Your task to perform on an android device: Show the shopping cart on newegg.com. Search for "amazon basics triple a" on newegg.com, select the first entry, and add it to the cart. Image 0: 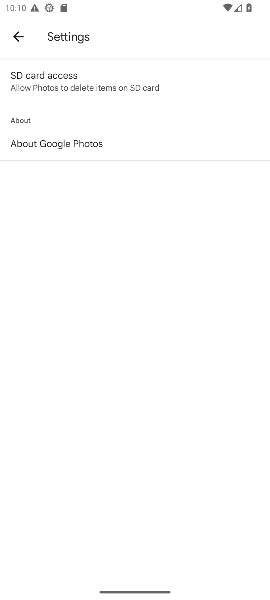
Step 0: press home button
Your task to perform on an android device: Show the shopping cart on newegg.com. Search for "amazon basics triple a" on newegg.com, select the first entry, and add it to the cart. Image 1: 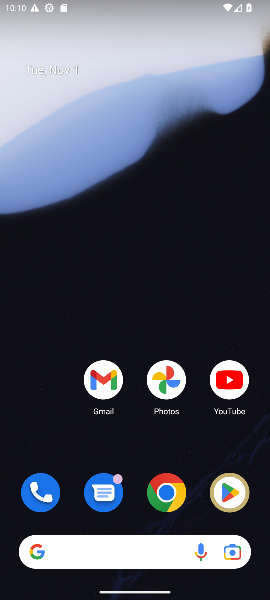
Step 1: click (166, 496)
Your task to perform on an android device: Show the shopping cart on newegg.com. Search for "amazon basics triple a" on newegg.com, select the first entry, and add it to the cart. Image 2: 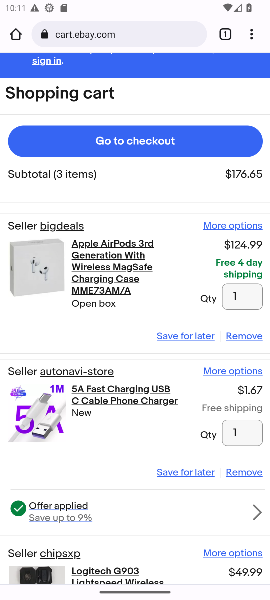
Step 2: click (92, 28)
Your task to perform on an android device: Show the shopping cart on newegg.com. Search for "amazon basics triple a" on newegg.com, select the first entry, and add it to the cart. Image 3: 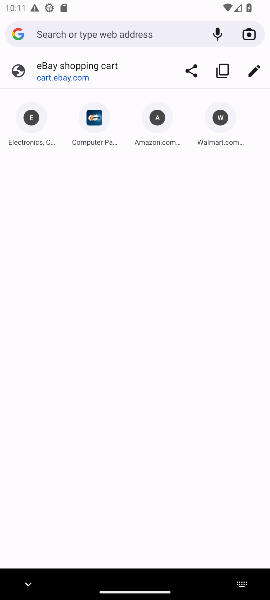
Step 3: type "newegg.com"
Your task to perform on an android device: Show the shopping cart on newegg.com. Search for "amazon basics triple a" on newegg.com, select the first entry, and add it to the cart. Image 4: 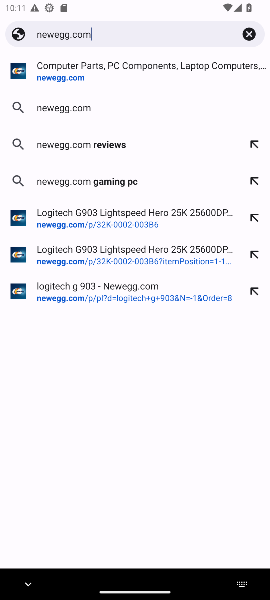
Step 4: click (49, 76)
Your task to perform on an android device: Show the shopping cart on newegg.com. Search for "amazon basics triple a" on newegg.com, select the first entry, and add it to the cart. Image 5: 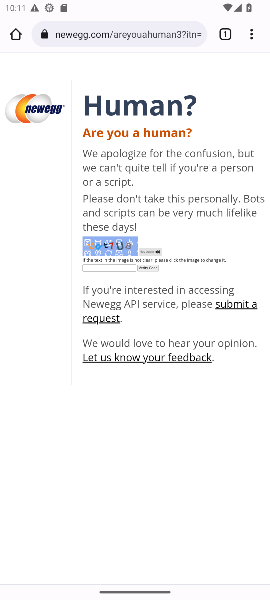
Step 5: press back button
Your task to perform on an android device: Show the shopping cart on newegg.com. Search for "amazon basics triple a" on newegg.com, select the first entry, and add it to the cart. Image 6: 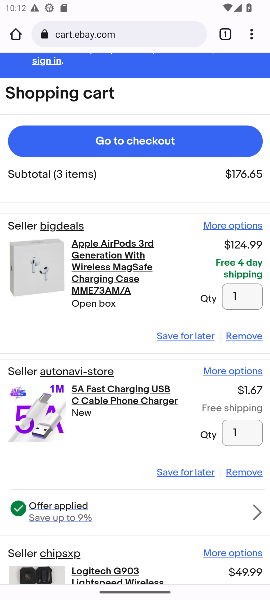
Step 6: press back button
Your task to perform on an android device: Show the shopping cart on newegg.com. Search for "amazon basics triple a" on newegg.com, select the first entry, and add it to the cart. Image 7: 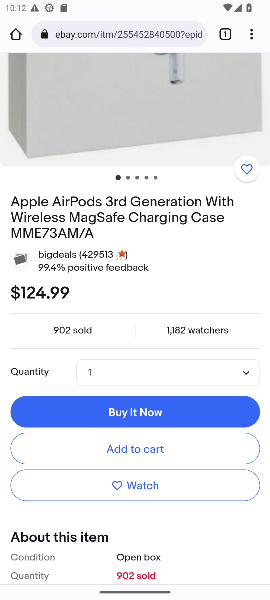
Step 7: press back button
Your task to perform on an android device: Show the shopping cart on newegg.com. Search for "amazon basics triple a" on newegg.com, select the first entry, and add it to the cart. Image 8: 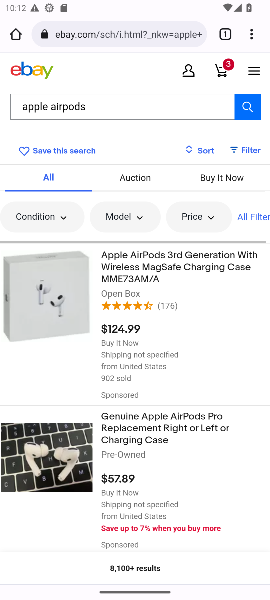
Step 8: click (104, 34)
Your task to perform on an android device: Show the shopping cart on newegg.com. Search for "amazon basics triple a" on newegg.com, select the first entry, and add it to the cart. Image 9: 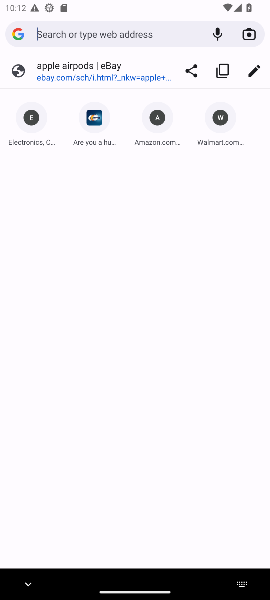
Step 9: type "newegg.com"
Your task to perform on an android device: Show the shopping cart on newegg.com. Search for "amazon basics triple a" on newegg.com, select the first entry, and add it to the cart. Image 10: 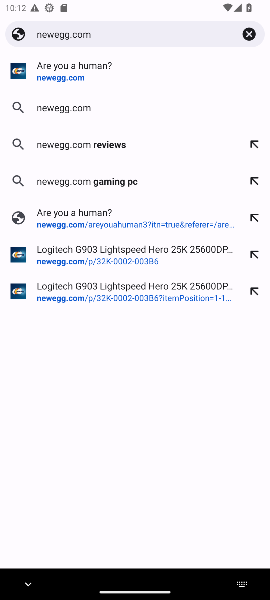
Step 10: click (49, 78)
Your task to perform on an android device: Show the shopping cart on newegg.com. Search for "amazon basics triple a" on newegg.com, select the first entry, and add it to the cart. Image 11: 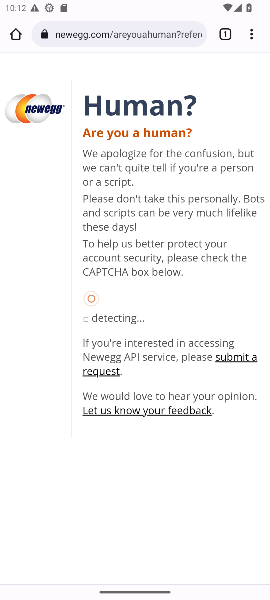
Step 11: press back button
Your task to perform on an android device: Show the shopping cart on newegg.com. Search for "amazon basics triple a" on newegg.com, select the first entry, and add it to the cart. Image 12: 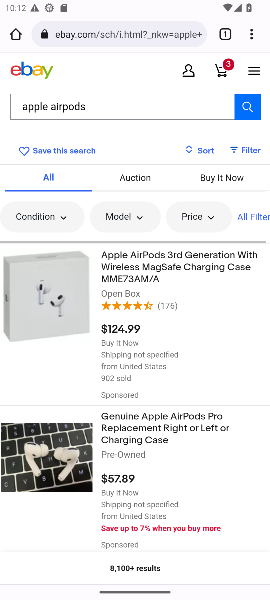
Step 12: click (61, 30)
Your task to perform on an android device: Show the shopping cart on newegg.com. Search for "amazon basics triple a" on newegg.com, select the first entry, and add it to the cart. Image 13: 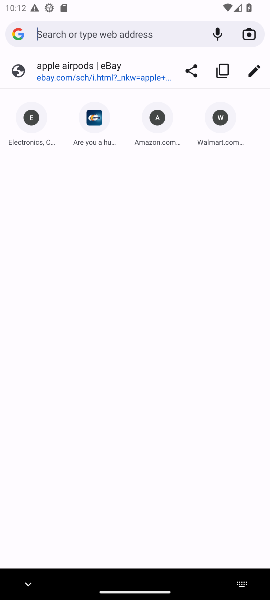
Step 13: press back button
Your task to perform on an android device: Show the shopping cart on newegg.com. Search for "amazon basics triple a" on newegg.com, select the first entry, and add it to the cart. Image 14: 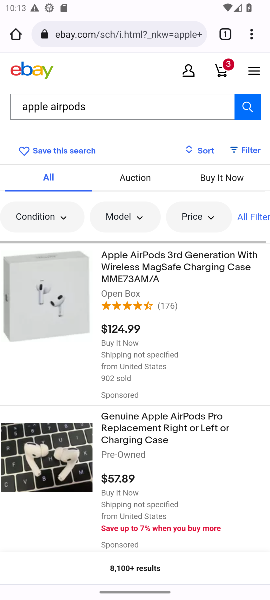
Step 14: press back button
Your task to perform on an android device: Show the shopping cart on newegg.com. Search for "amazon basics triple a" on newegg.com, select the first entry, and add it to the cart. Image 15: 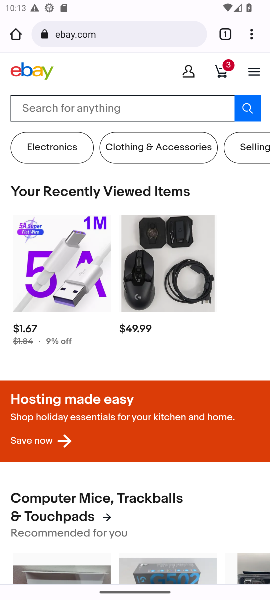
Step 15: press back button
Your task to perform on an android device: Show the shopping cart on newegg.com. Search for "amazon basics triple a" on newegg.com, select the first entry, and add it to the cart. Image 16: 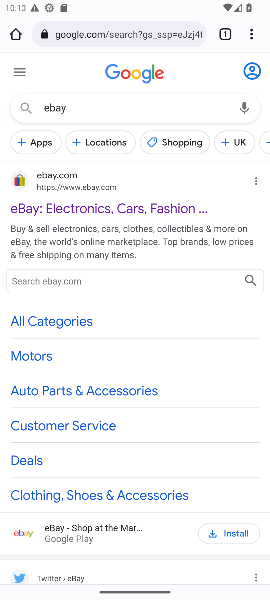
Step 16: click (75, 28)
Your task to perform on an android device: Show the shopping cart on newegg.com. Search for "amazon basics triple a" on newegg.com, select the first entry, and add it to the cart. Image 17: 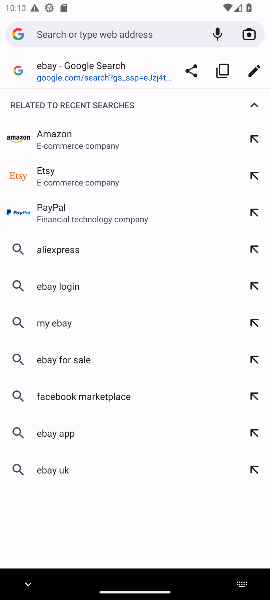
Step 17: type "newegg.com"
Your task to perform on an android device: Show the shopping cart on newegg.com. Search for "amazon basics triple a" on newegg.com, select the first entry, and add it to the cart. Image 18: 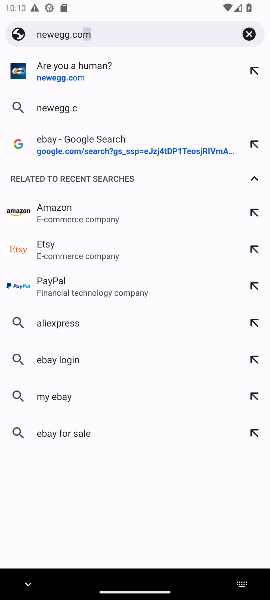
Step 18: type ""
Your task to perform on an android device: Show the shopping cart on newegg.com. Search for "amazon basics triple a" on newegg.com, select the first entry, and add it to the cart. Image 19: 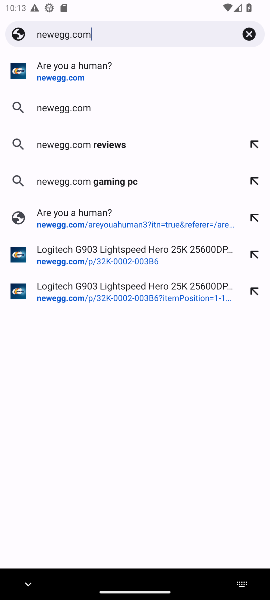
Step 19: click (65, 110)
Your task to perform on an android device: Show the shopping cart on newegg.com. Search for "amazon basics triple a" on newegg.com, select the first entry, and add it to the cart. Image 20: 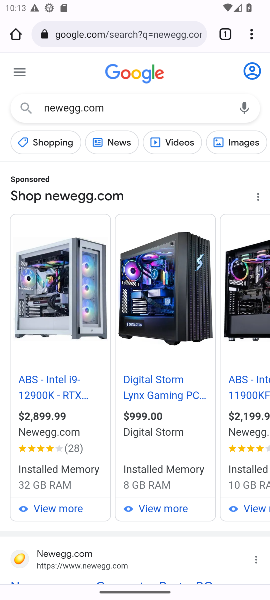
Step 20: drag from (61, 440) to (66, 158)
Your task to perform on an android device: Show the shopping cart on newegg.com. Search for "amazon basics triple a" on newegg.com, select the first entry, and add it to the cart. Image 21: 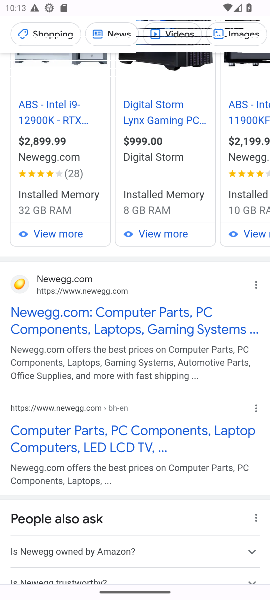
Step 21: click (42, 320)
Your task to perform on an android device: Show the shopping cart on newegg.com. Search for "amazon basics triple a" on newegg.com, select the first entry, and add it to the cart. Image 22: 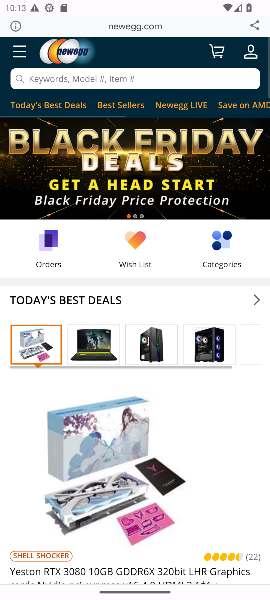
Step 22: click (51, 80)
Your task to perform on an android device: Show the shopping cart on newegg.com. Search for "amazon basics triple a" on newegg.com, select the first entry, and add it to the cart. Image 23: 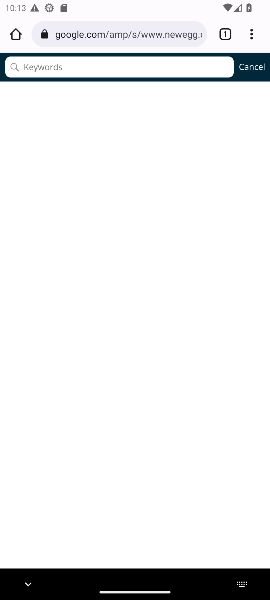
Step 23: click (49, 63)
Your task to perform on an android device: Show the shopping cart on newegg.com. Search for "amazon basics triple a" on newegg.com, select the first entry, and add it to the cart. Image 24: 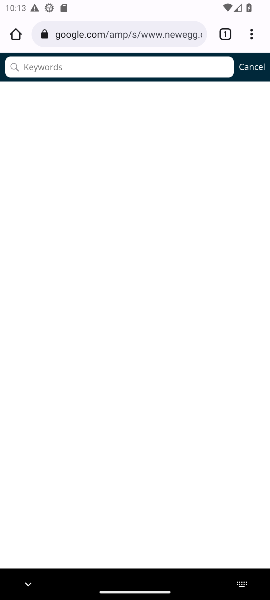
Step 24: click (43, 67)
Your task to perform on an android device: Show the shopping cart on newegg.com. Search for "amazon basics triple a" on newegg.com, select the first entry, and add it to the cart. Image 25: 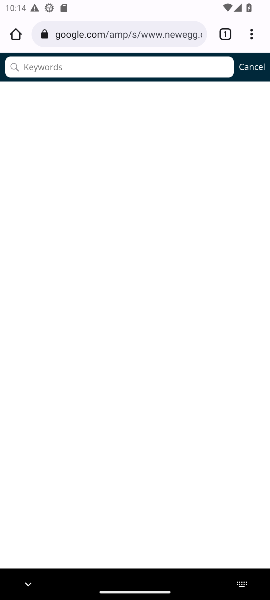
Step 25: click (84, 33)
Your task to perform on an android device: Show the shopping cart on newegg.com. Search for "amazon basics triple a" on newegg.com, select the first entry, and add it to the cart. Image 26: 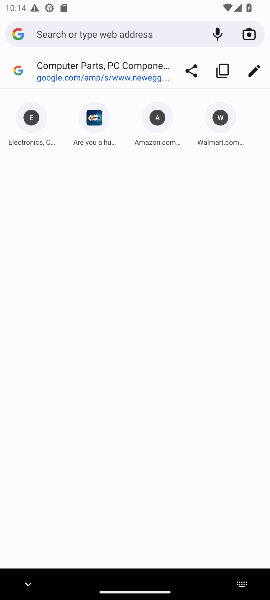
Step 26: type "newegg.com"
Your task to perform on an android device: Show the shopping cart on newegg.com. Search for "amazon basics triple a" on newegg.com, select the first entry, and add it to the cart. Image 27: 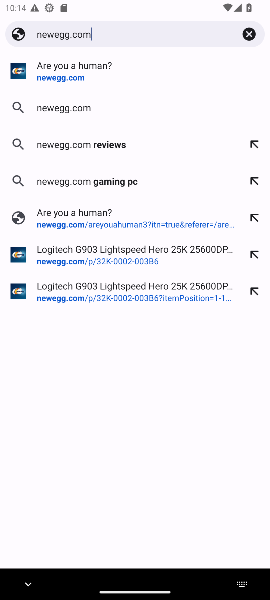
Step 27: click (50, 107)
Your task to perform on an android device: Show the shopping cart on newegg.com. Search for "amazon basics triple a" on newegg.com, select the first entry, and add it to the cart. Image 28: 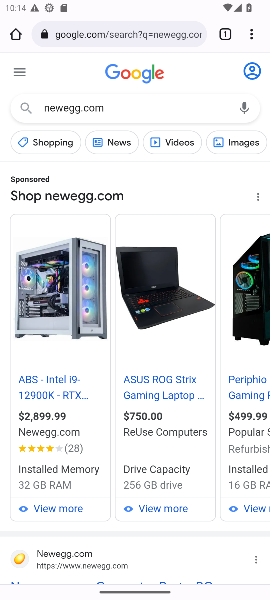
Step 28: drag from (99, 512) to (124, 155)
Your task to perform on an android device: Show the shopping cart on newegg.com. Search for "amazon basics triple a" on newegg.com, select the first entry, and add it to the cart. Image 29: 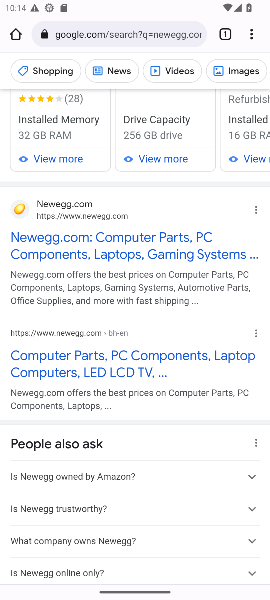
Step 29: click (33, 238)
Your task to perform on an android device: Show the shopping cart on newegg.com. Search for "amazon basics triple a" on newegg.com, select the first entry, and add it to the cart. Image 30: 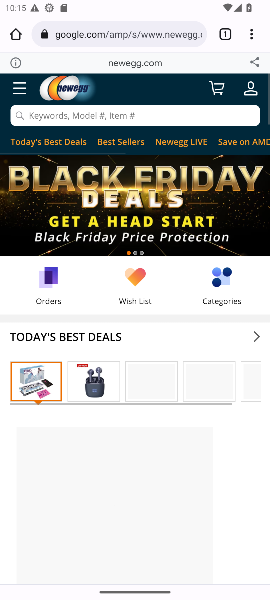
Step 30: click (59, 118)
Your task to perform on an android device: Show the shopping cart on newegg.com. Search for "amazon basics triple a" on newegg.com, select the first entry, and add it to the cart. Image 31: 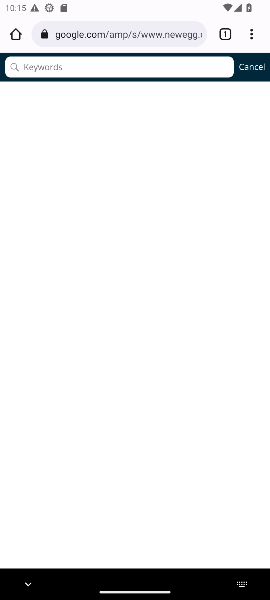
Step 31: click (69, 68)
Your task to perform on an android device: Show the shopping cart on newegg.com. Search for "amazon basics triple a" on newegg.com, select the first entry, and add it to the cart. Image 32: 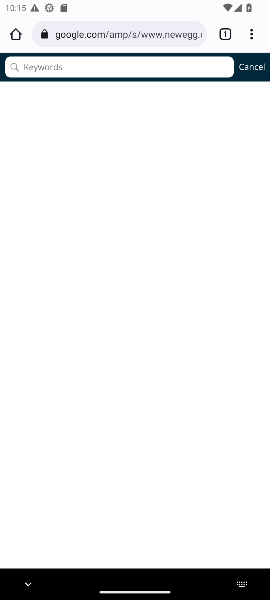
Step 32: type "amazon basics triple "
Your task to perform on an android device: Show the shopping cart on newegg.com. Search for "amazon basics triple a" on newegg.com, select the first entry, and add it to the cart. Image 33: 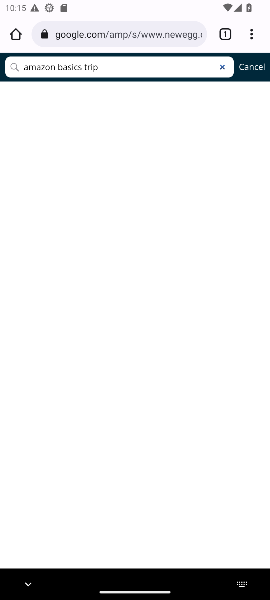
Step 33: type ""
Your task to perform on an android device: Show the shopping cart on newegg.com. Search for "amazon basics triple a" on newegg.com, select the first entry, and add it to the cart. Image 34: 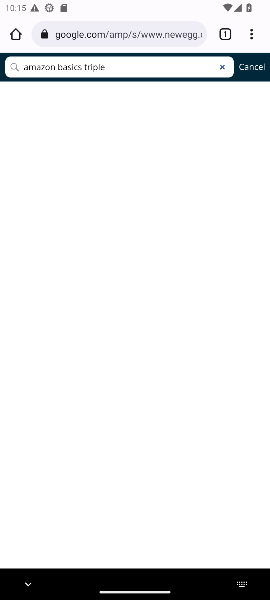
Step 34: type ""
Your task to perform on an android device: Show the shopping cart on newegg.com. Search for "amazon basics triple a" on newegg.com, select the first entry, and add it to the cart. Image 35: 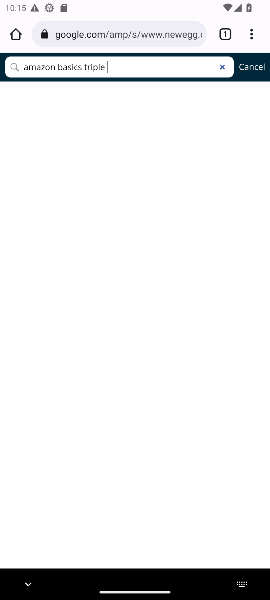
Step 35: click (17, 69)
Your task to perform on an android device: Show the shopping cart on newegg.com. Search for "amazon basics triple a" on newegg.com, select the first entry, and add it to the cart. Image 36: 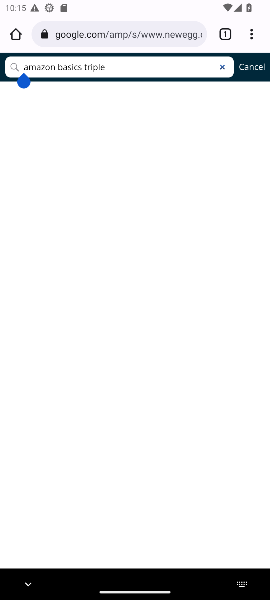
Step 36: click (122, 61)
Your task to perform on an android device: Show the shopping cart on newegg.com. Search for "amazon basics triple a" on newegg.com, select the first entry, and add it to the cart. Image 37: 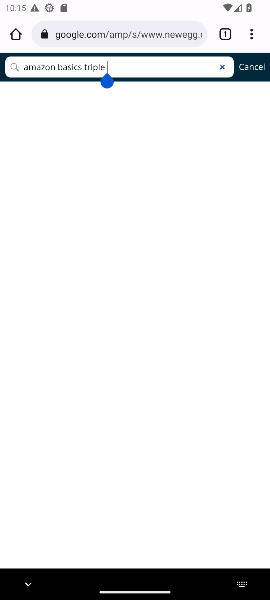
Step 37: type ""
Your task to perform on an android device: Show the shopping cart on newegg.com. Search for "amazon basics triple a" on newegg.com, select the first entry, and add it to the cart. Image 38: 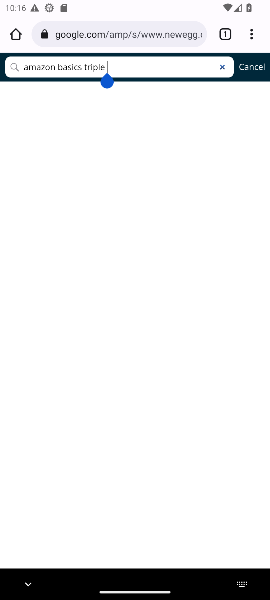
Step 38: type ""
Your task to perform on an android device: Show the shopping cart on newegg.com. Search for "amazon basics triple a" on newegg.com, select the first entry, and add it to the cart. Image 39: 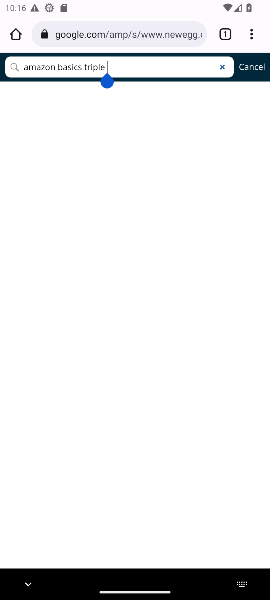
Step 39: task complete